Your task to perform on an android device: toggle location history Image 0: 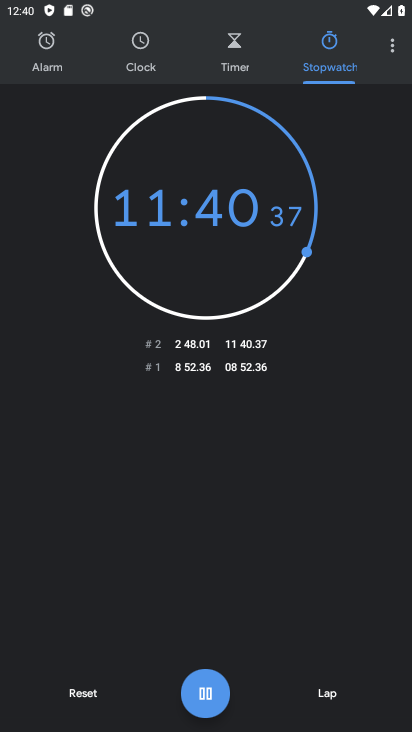
Step 0: press back button
Your task to perform on an android device: toggle location history Image 1: 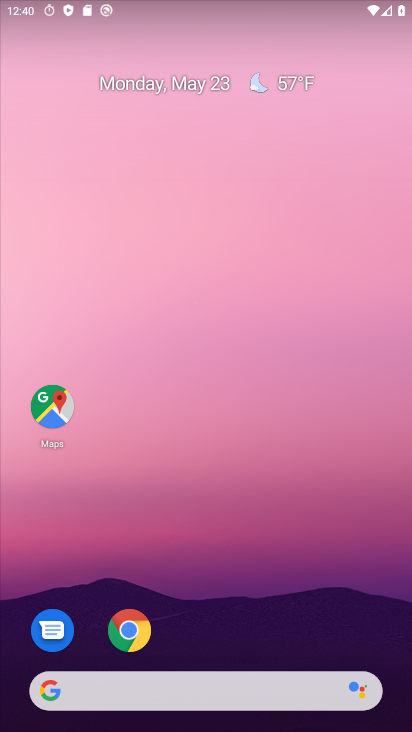
Step 1: drag from (251, 617) to (245, 18)
Your task to perform on an android device: toggle location history Image 2: 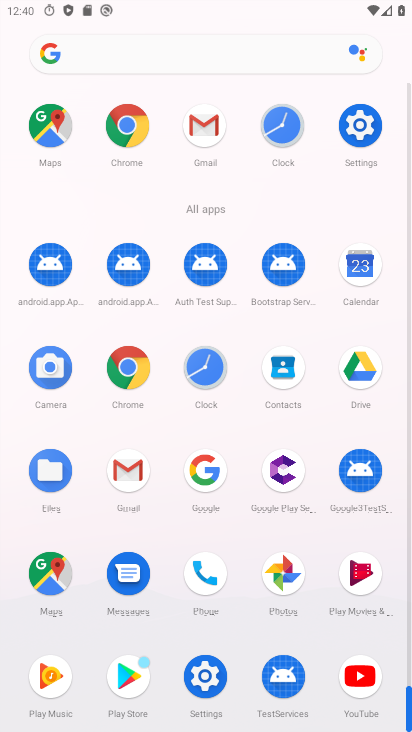
Step 2: drag from (5, 541) to (5, 182)
Your task to perform on an android device: toggle location history Image 3: 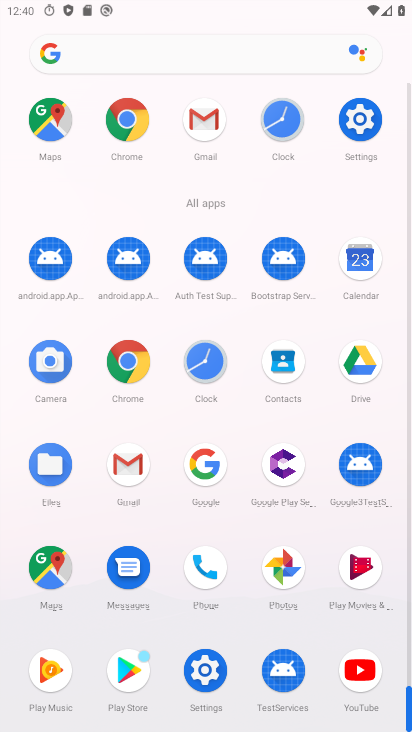
Step 3: click (202, 670)
Your task to perform on an android device: toggle location history Image 4: 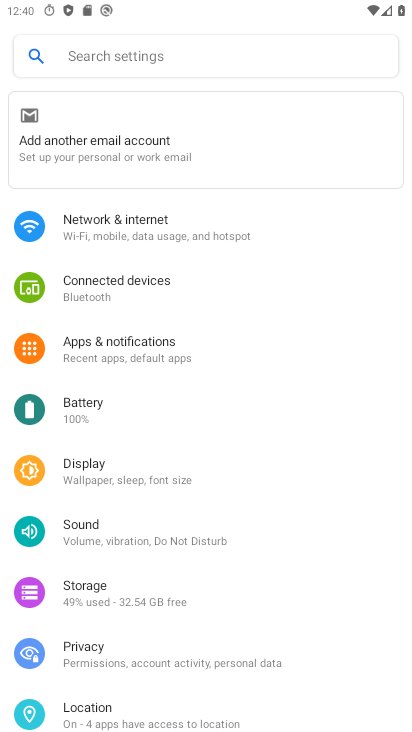
Step 4: drag from (268, 582) to (291, 119)
Your task to perform on an android device: toggle location history Image 5: 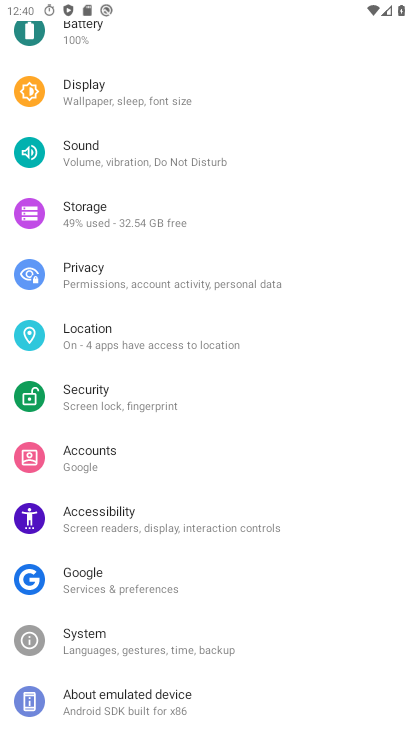
Step 5: click (150, 344)
Your task to perform on an android device: toggle location history Image 6: 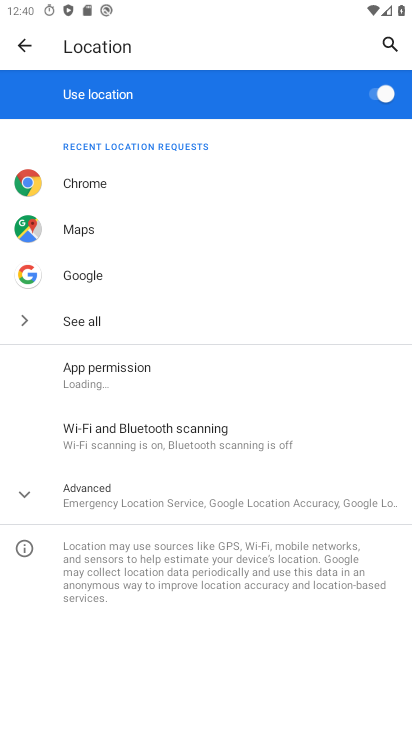
Step 6: click (48, 493)
Your task to perform on an android device: toggle location history Image 7: 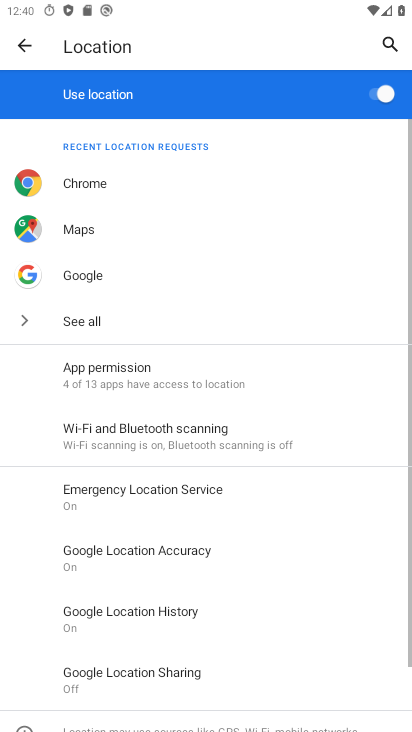
Step 7: drag from (317, 581) to (313, 171)
Your task to perform on an android device: toggle location history Image 8: 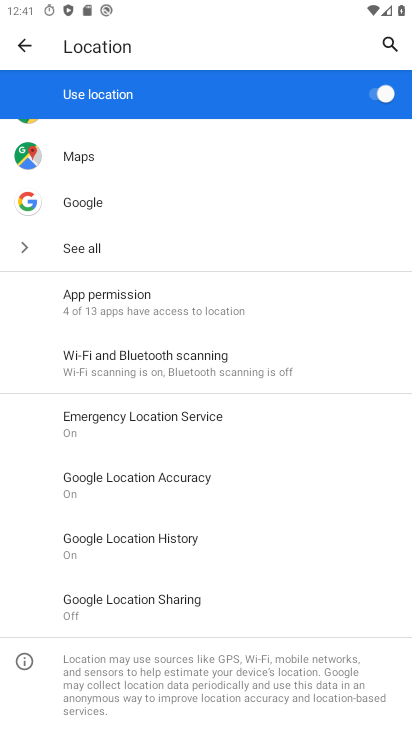
Step 8: click (195, 538)
Your task to perform on an android device: toggle location history Image 9: 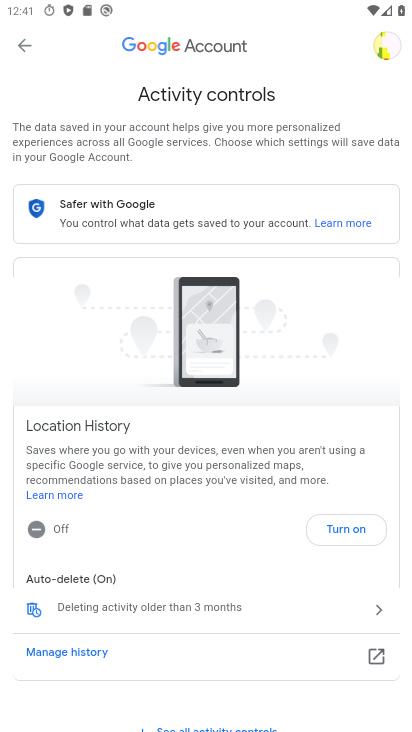
Step 9: click (353, 526)
Your task to perform on an android device: toggle location history Image 10: 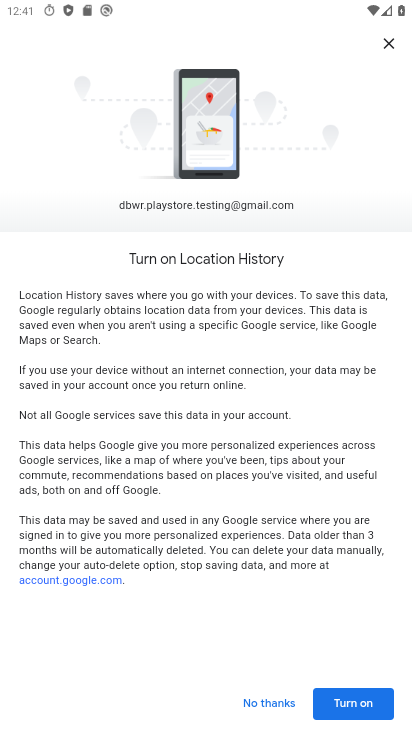
Step 10: click (329, 693)
Your task to perform on an android device: toggle location history Image 11: 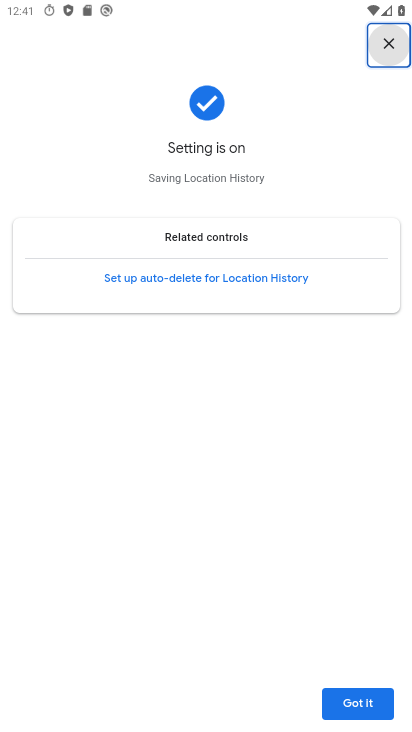
Step 11: task complete